Your task to perform on an android device: Open Wikipedia Image 0: 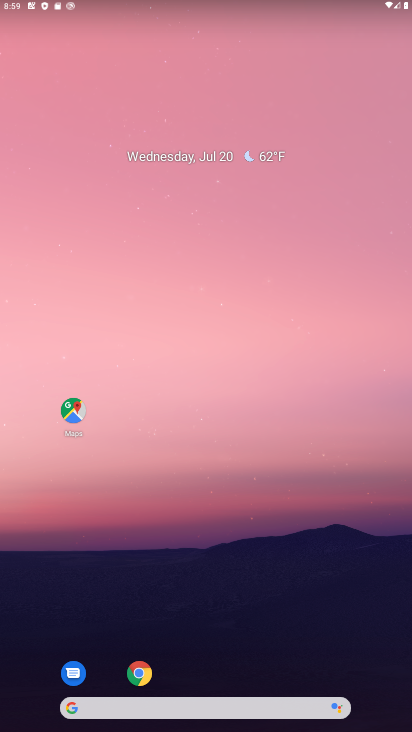
Step 0: click (137, 673)
Your task to perform on an android device: Open Wikipedia Image 1: 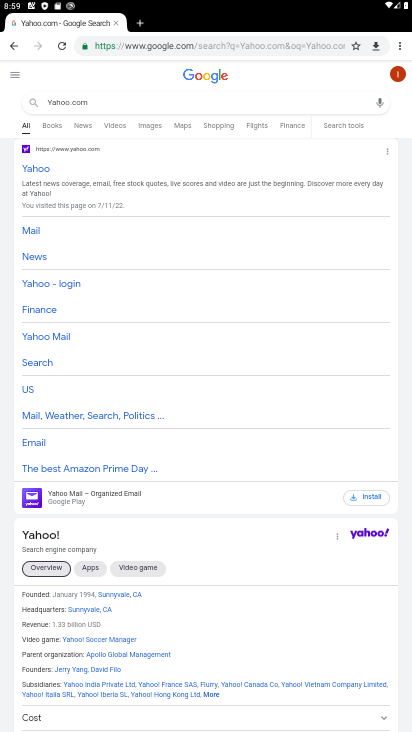
Step 1: click (339, 47)
Your task to perform on an android device: Open Wikipedia Image 2: 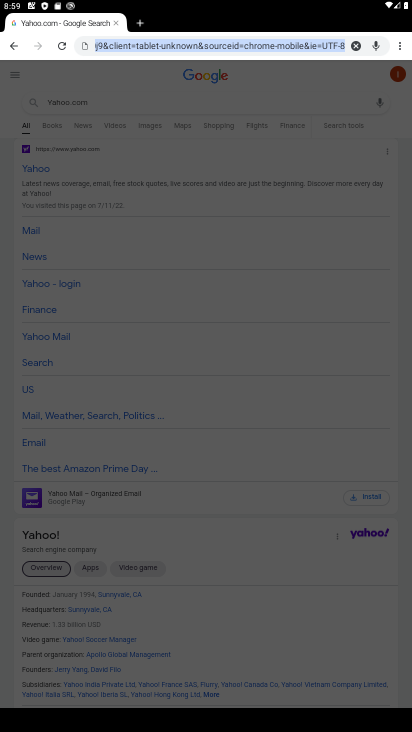
Step 2: click (360, 46)
Your task to perform on an android device: Open Wikipedia Image 3: 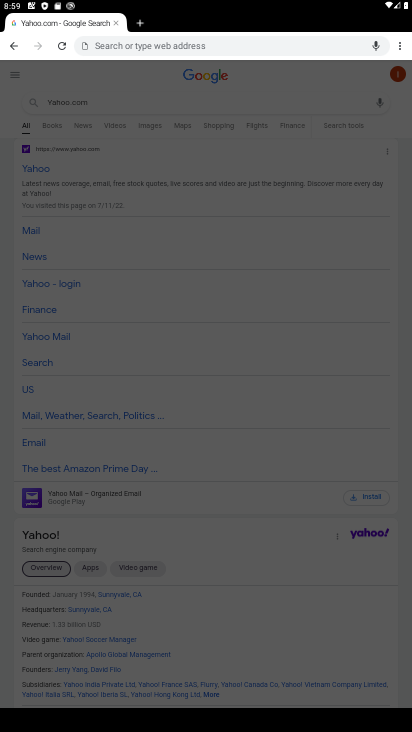
Step 3: type " Wikipedia"
Your task to perform on an android device: Open Wikipedia Image 4: 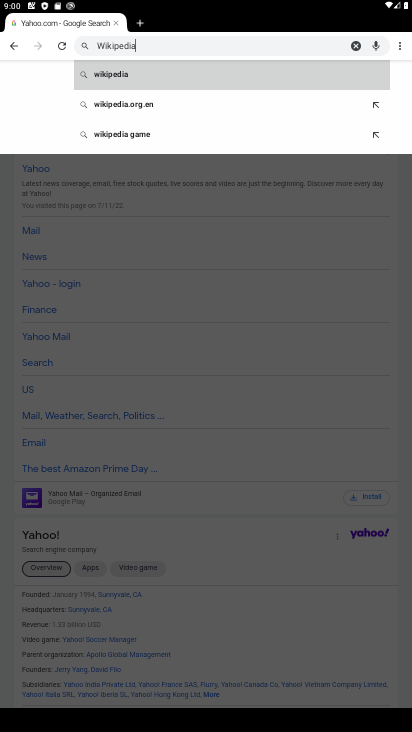
Step 4: click (181, 70)
Your task to perform on an android device: Open Wikipedia Image 5: 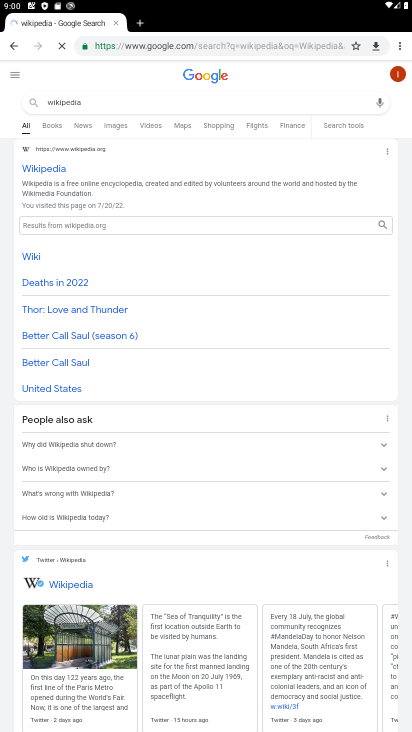
Step 5: task complete